Your task to perform on an android device: Open eBay Image 0: 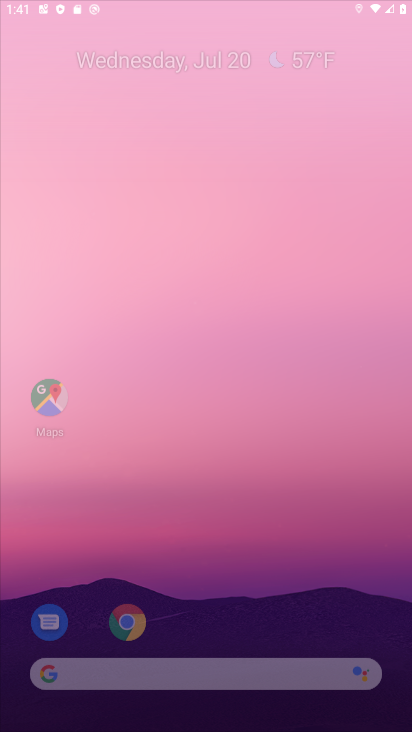
Step 0: press home button
Your task to perform on an android device: Open eBay Image 1: 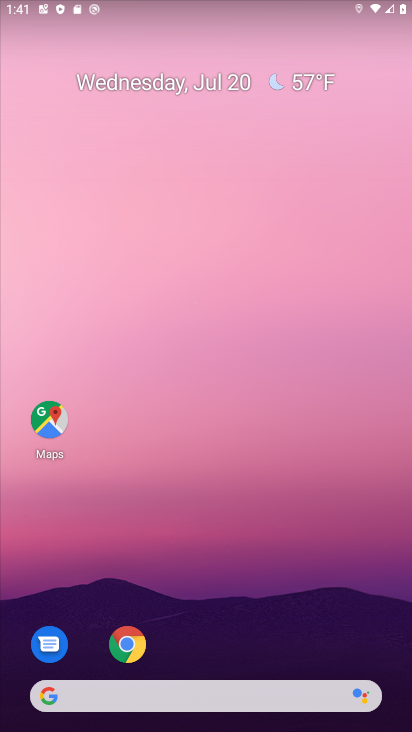
Step 1: click (44, 696)
Your task to perform on an android device: Open eBay Image 2: 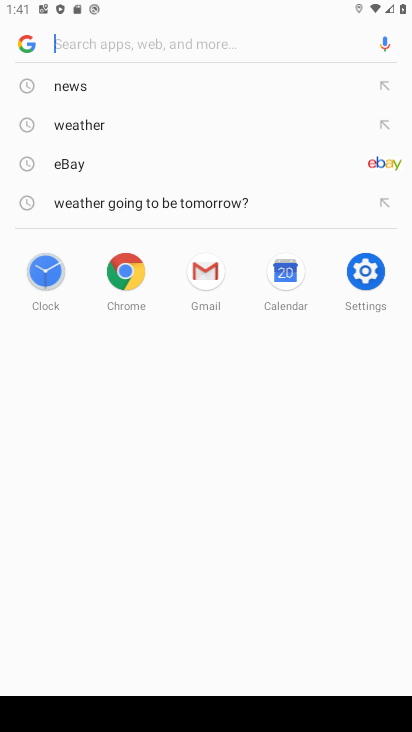
Step 2: click (62, 173)
Your task to perform on an android device: Open eBay Image 3: 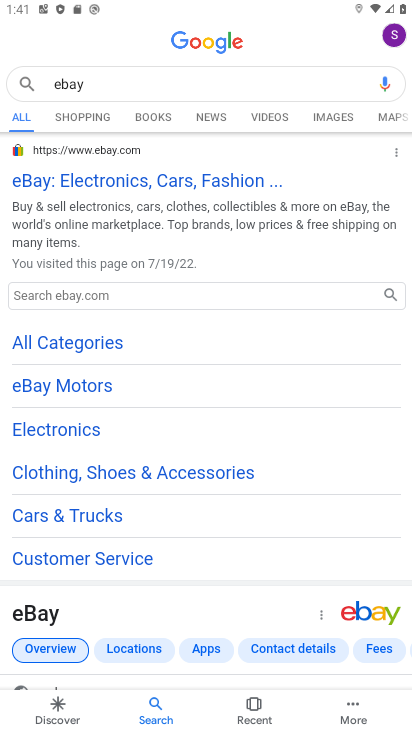
Step 3: click (124, 181)
Your task to perform on an android device: Open eBay Image 4: 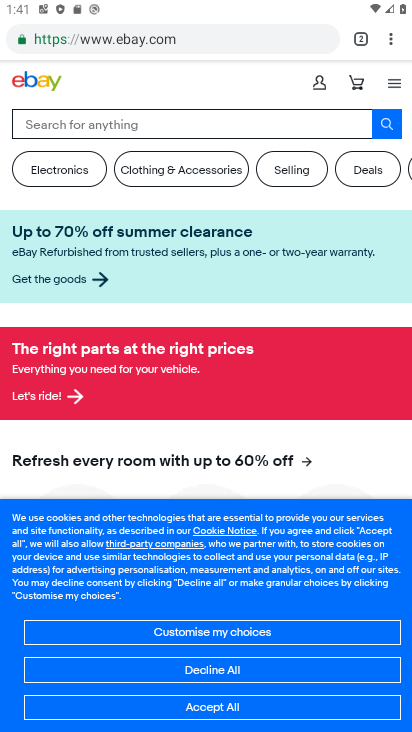
Step 4: task complete